Your task to perform on an android device: Go to Amazon Image 0: 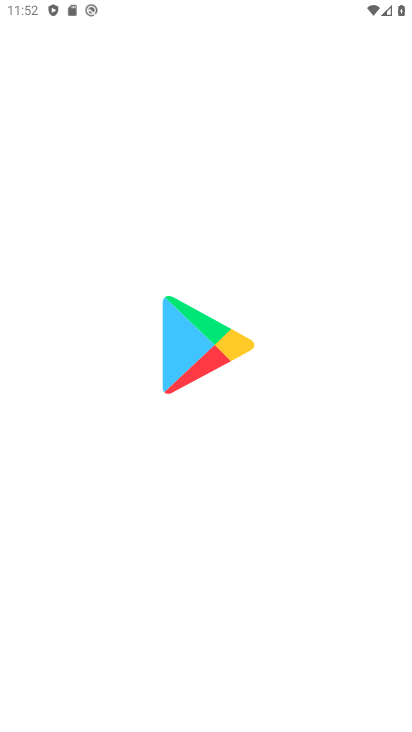
Step 0: drag from (259, 673) to (242, 97)
Your task to perform on an android device: Go to Amazon Image 1: 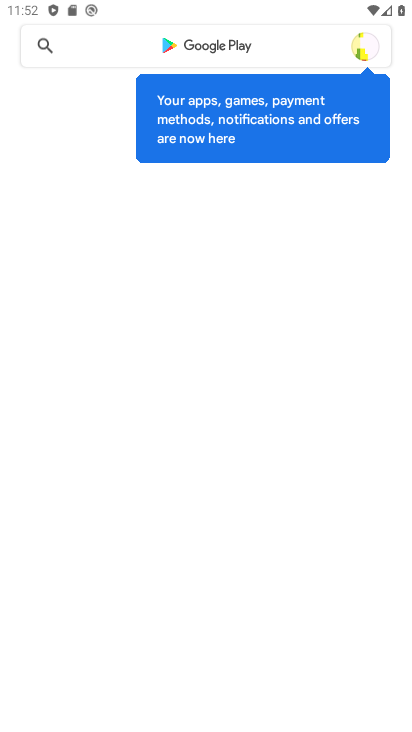
Step 1: press back button
Your task to perform on an android device: Go to Amazon Image 2: 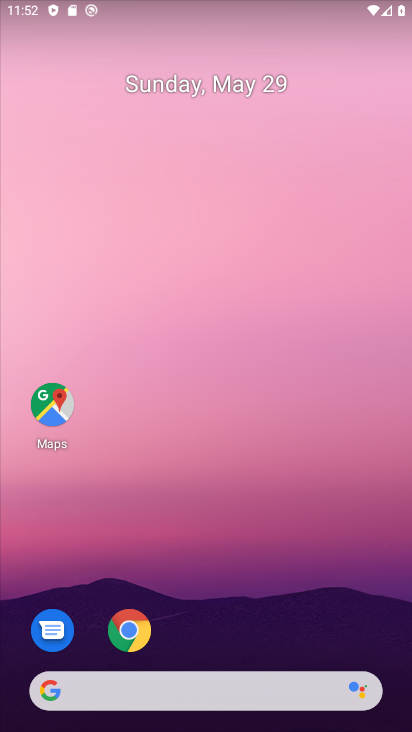
Step 2: drag from (245, 637) to (199, 148)
Your task to perform on an android device: Go to Amazon Image 3: 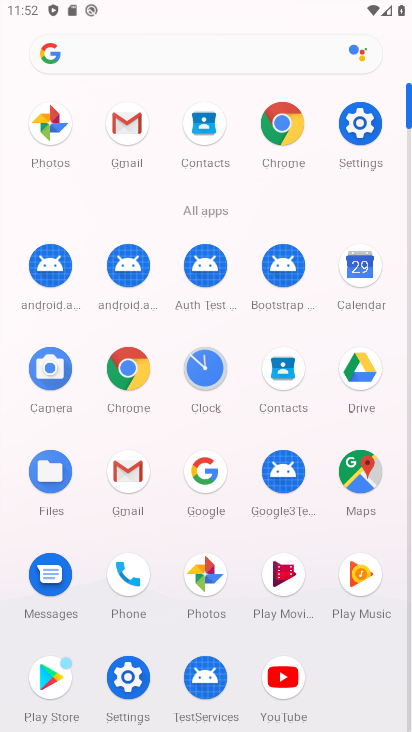
Step 3: click (285, 117)
Your task to perform on an android device: Go to Amazon Image 4: 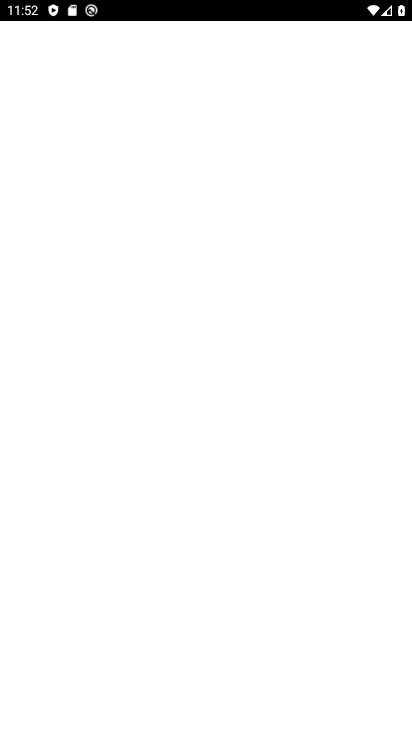
Step 4: click (287, 128)
Your task to perform on an android device: Go to Amazon Image 5: 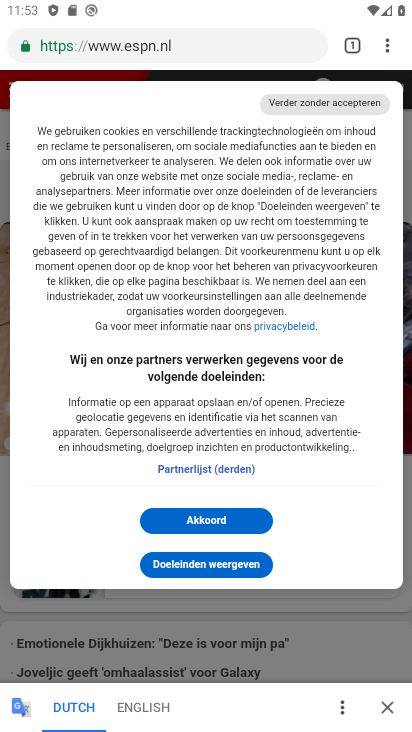
Step 5: drag from (387, 48) to (217, 90)
Your task to perform on an android device: Go to Amazon Image 6: 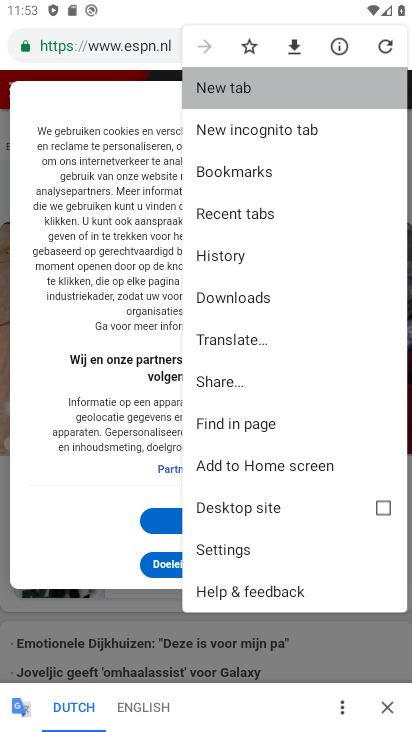
Step 6: click (217, 90)
Your task to perform on an android device: Go to Amazon Image 7: 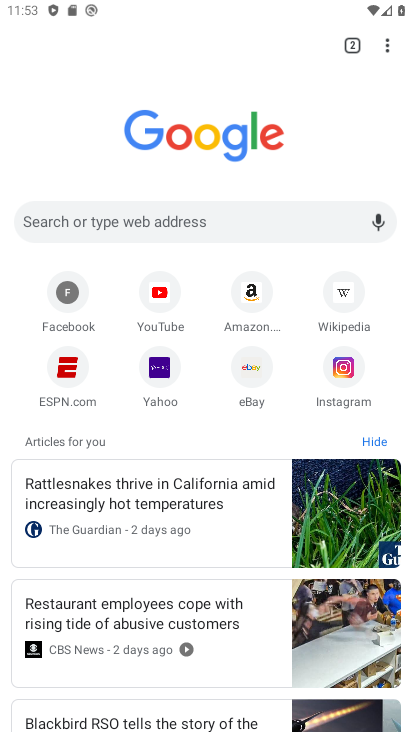
Step 7: click (254, 296)
Your task to perform on an android device: Go to Amazon Image 8: 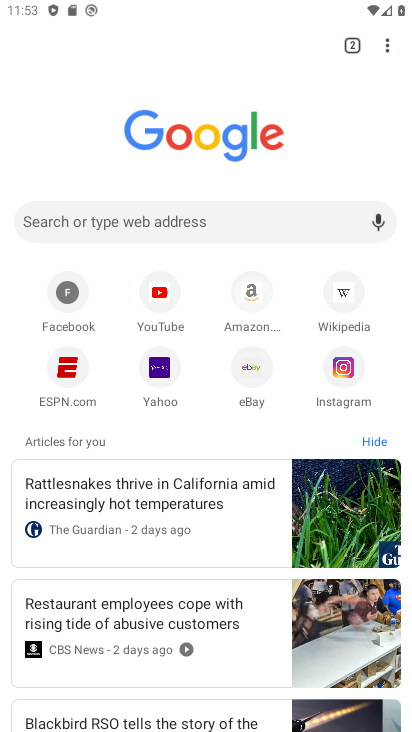
Step 8: click (252, 295)
Your task to perform on an android device: Go to Amazon Image 9: 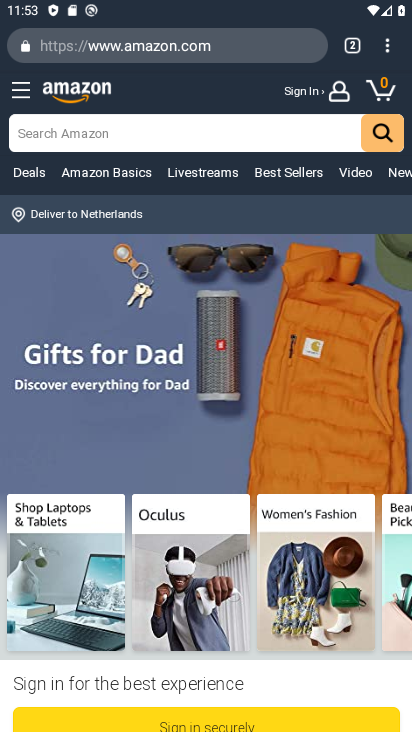
Step 9: task complete